Your task to perform on an android device: turn on javascript in the chrome app Image 0: 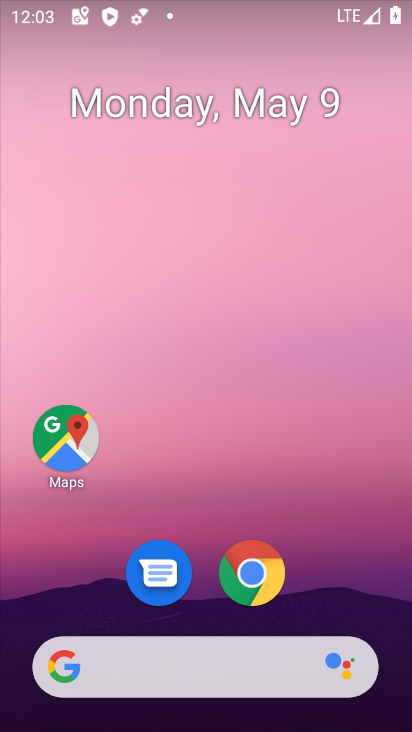
Step 0: drag from (326, 587) to (45, 22)
Your task to perform on an android device: turn on javascript in the chrome app Image 1: 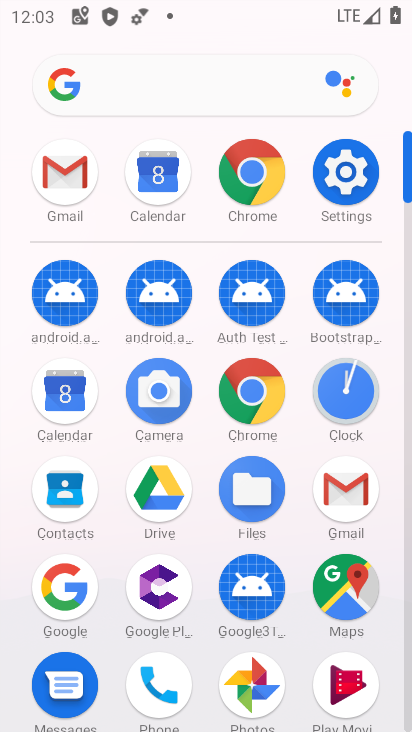
Step 1: drag from (17, 547) to (4, 147)
Your task to perform on an android device: turn on javascript in the chrome app Image 2: 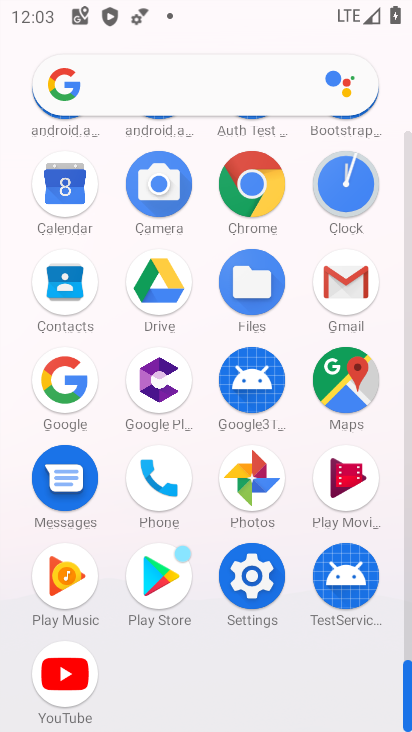
Step 2: click (251, 183)
Your task to perform on an android device: turn on javascript in the chrome app Image 3: 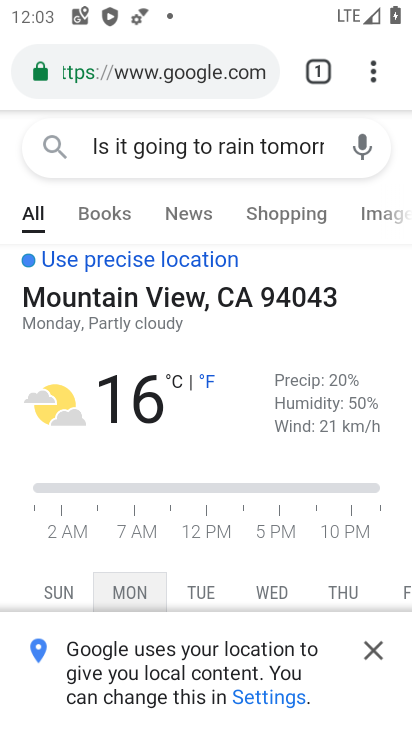
Step 3: drag from (369, 60) to (179, 557)
Your task to perform on an android device: turn on javascript in the chrome app Image 4: 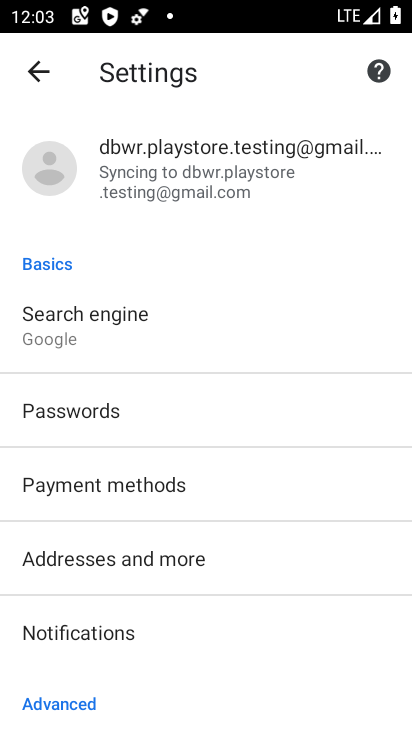
Step 4: drag from (236, 574) to (236, 147)
Your task to perform on an android device: turn on javascript in the chrome app Image 5: 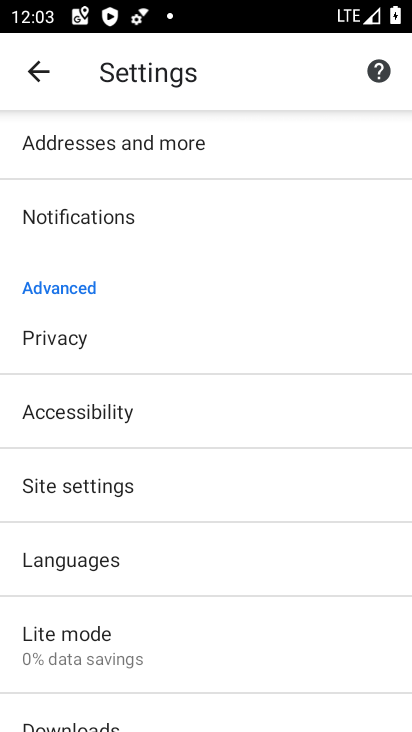
Step 5: click (131, 491)
Your task to perform on an android device: turn on javascript in the chrome app Image 6: 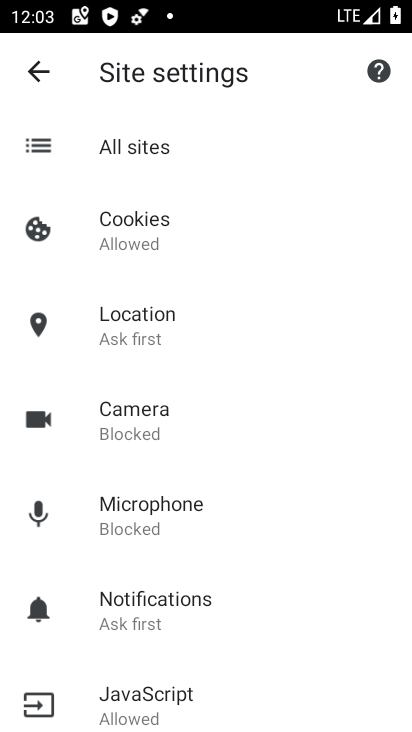
Step 6: drag from (260, 548) to (280, 203)
Your task to perform on an android device: turn on javascript in the chrome app Image 7: 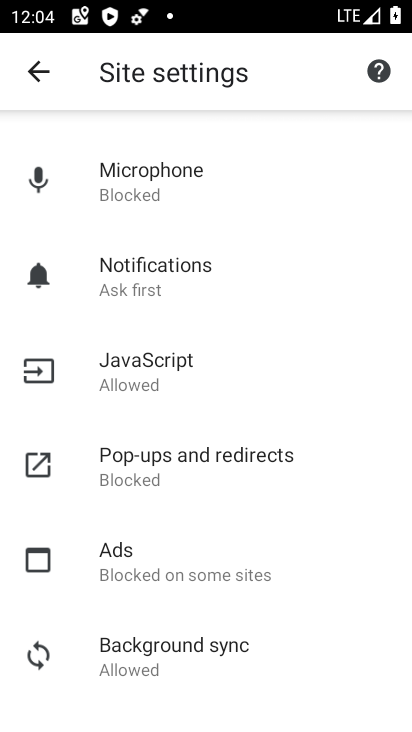
Step 7: click (193, 392)
Your task to perform on an android device: turn on javascript in the chrome app Image 8: 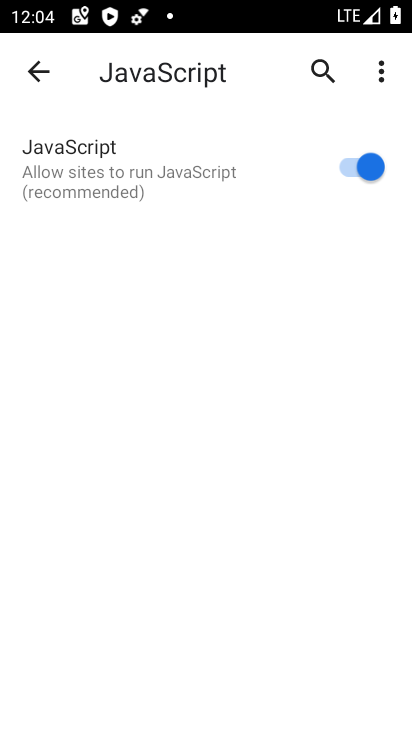
Step 8: task complete